Your task to perform on an android device: Clear the shopping cart on amazon. Search for "usb-a" on amazon, select the first entry, add it to the cart, then select checkout. Image 0: 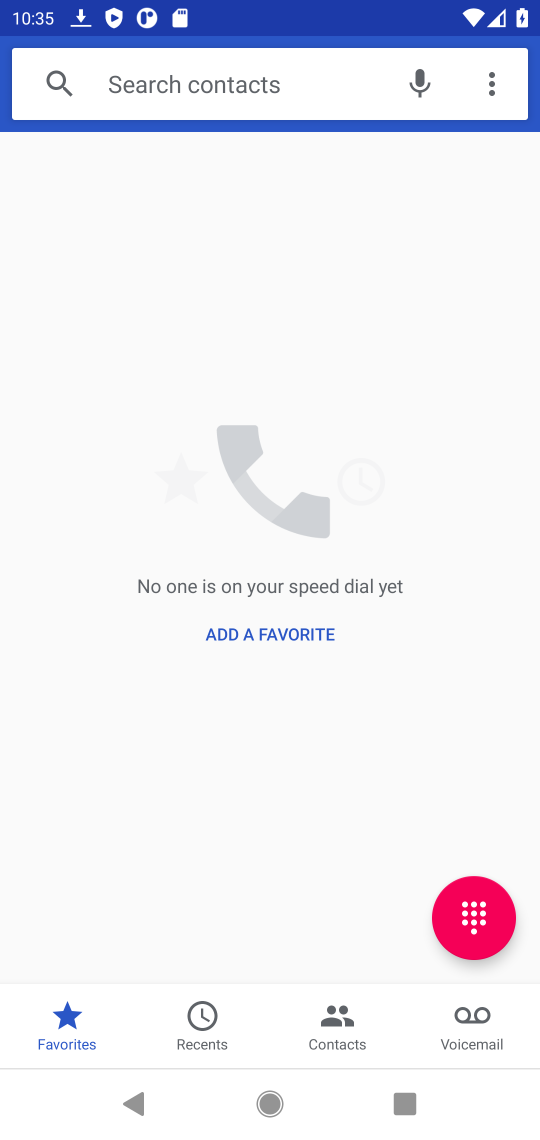
Step 0: press home button
Your task to perform on an android device: Clear the shopping cart on amazon. Search for "usb-a" on amazon, select the first entry, add it to the cart, then select checkout. Image 1: 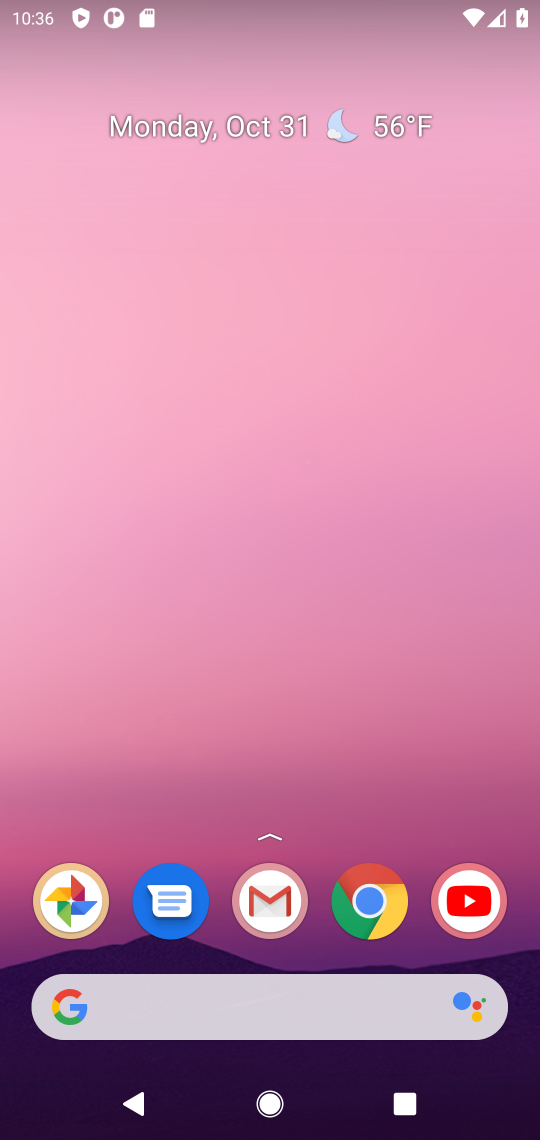
Step 1: drag from (236, 950) to (226, 507)
Your task to perform on an android device: Clear the shopping cart on amazon. Search for "usb-a" on amazon, select the first entry, add it to the cart, then select checkout. Image 2: 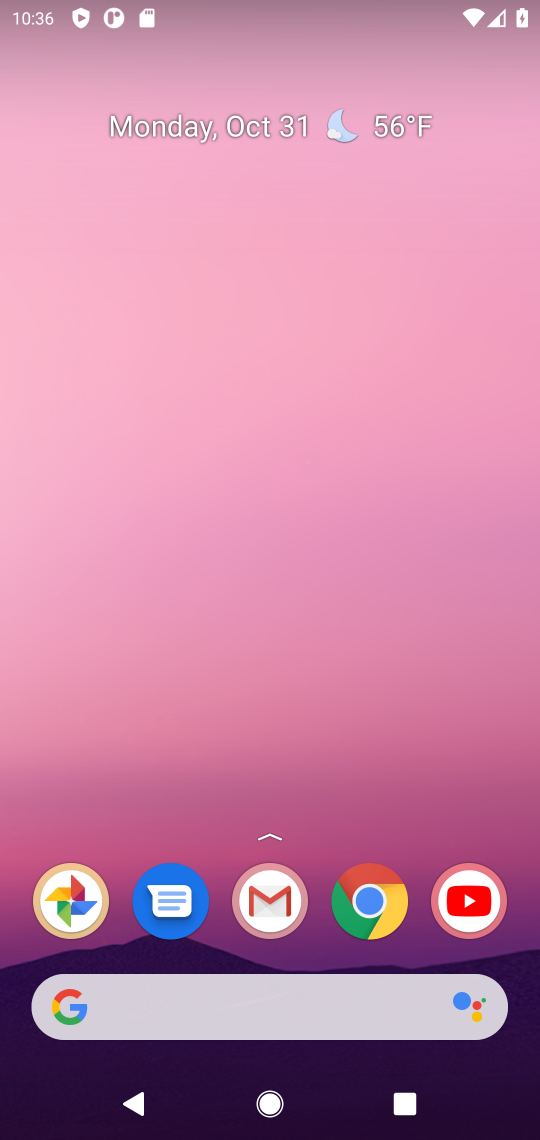
Step 2: drag from (235, 994) to (202, 76)
Your task to perform on an android device: Clear the shopping cart on amazon. Search for "usb-a" on amazon, select the first entry, add it to the cart, then select checkout. Image 3: 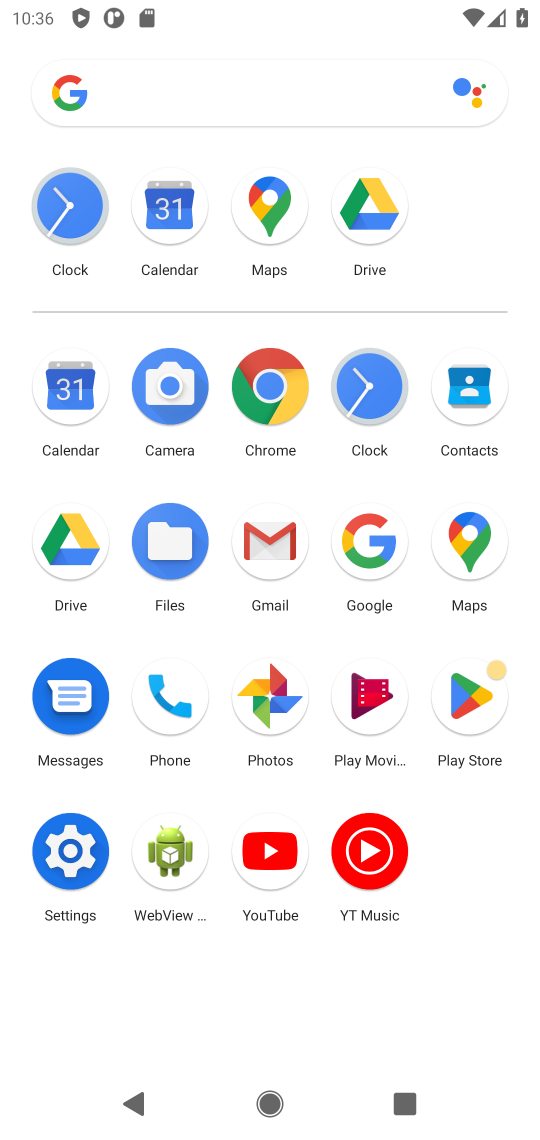
Step 3: click (366, 535)
Your task to perform on an android device: Clear the shopping cart on amazon. Search for "usb-a" on amazon, select the first entry, add it to the cart, then select checkout. Image 4: 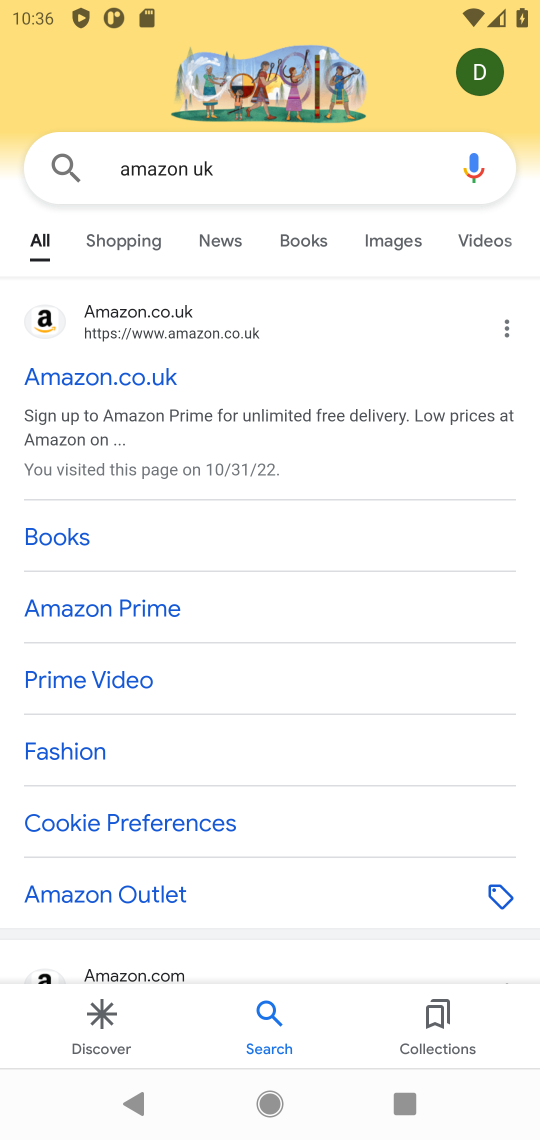
Step 4: click (301, 174)
Your task to perform on an android device: Clear the shopping cart on amazon. Search for "usb-a" on amazon, select the first entry, add it to the cart, then select checkout. Image 5: 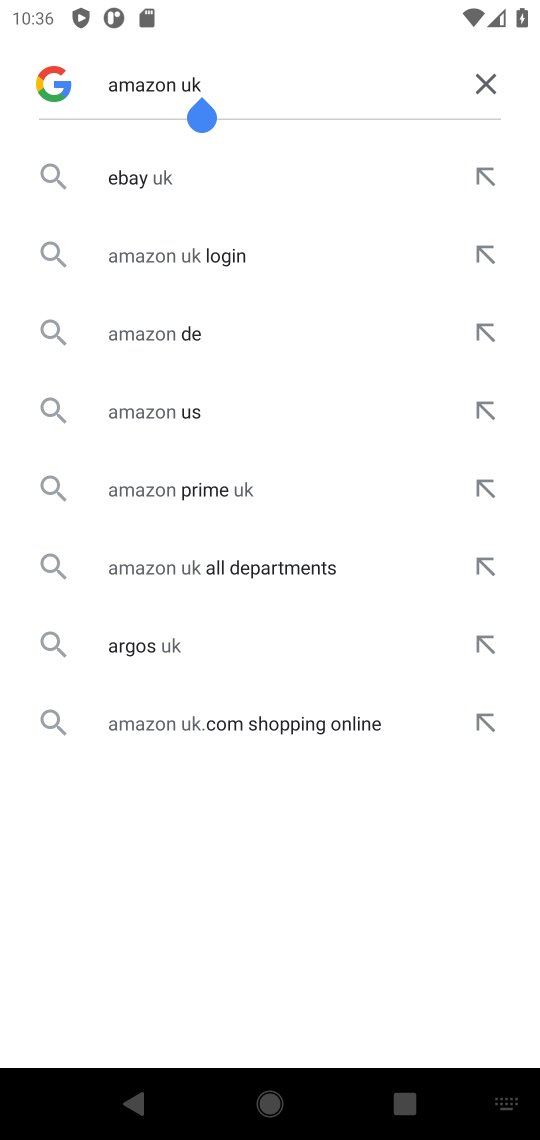
Step 5: click (483, 84)
Your task to perform on an android device: Clear the shopping cart on amazon. Search for "usb-a" on amazon, select the first entry, add it to the cart, then select checkout. Image 6: 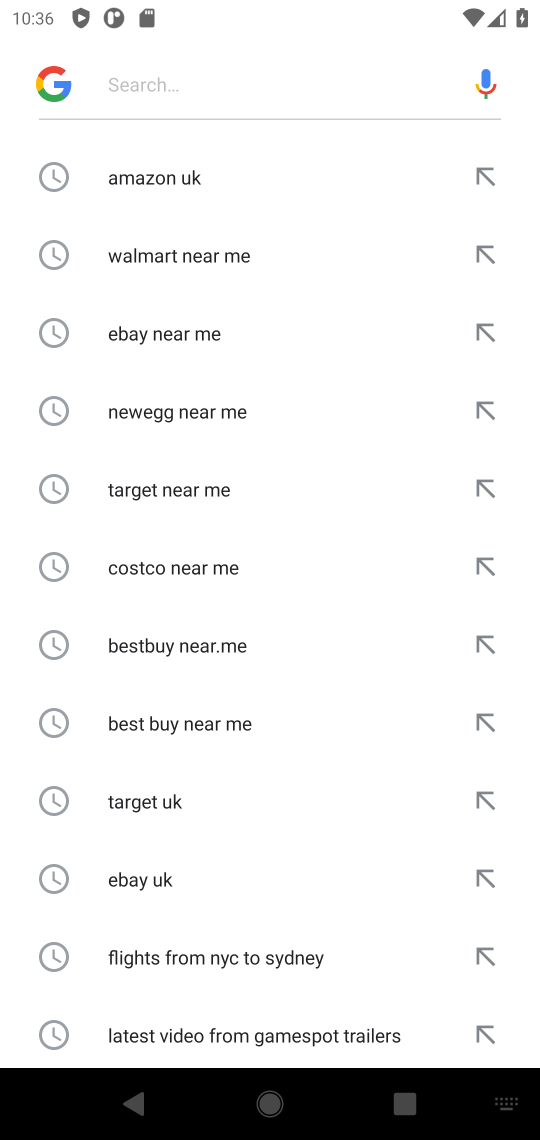
Step 6: click (167, 163)
Your task to perform on an android device: Clear the shopping cart on amazon. Search for "usb-a" on amazon, select the first entry, add it to the cart, then select checkout. Image 7: 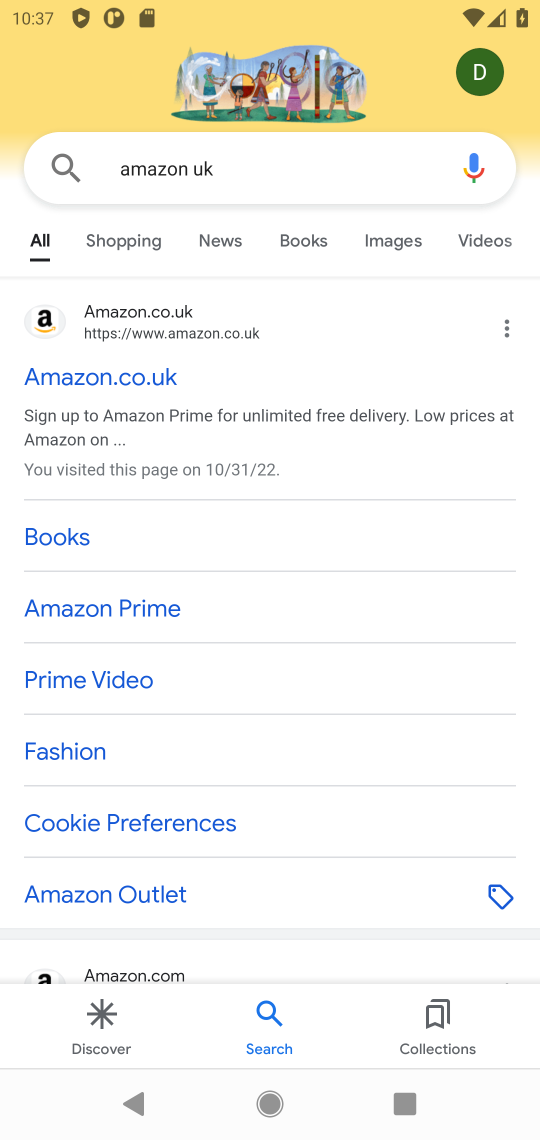
Step 7: click (71, 370)
Your task to perform on an android device: Clear the shopping cart on amazon. Search for "usb-a" on amazon, select the first entry, add it to the cart, then select checkout. Image 8: 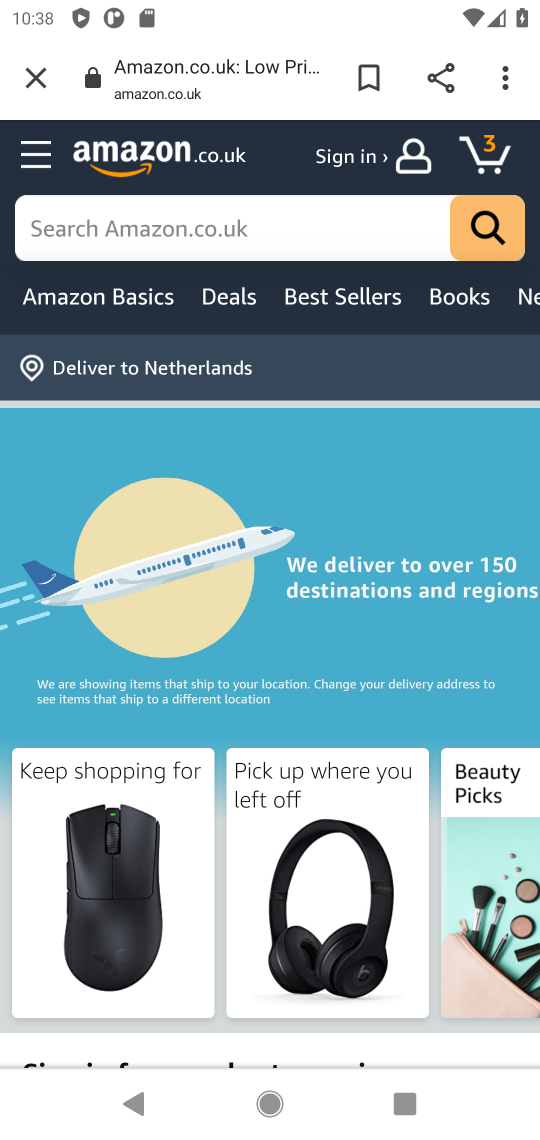
Step 8: click (250, 209)
Your task to perform on an android device: Clear the shopping cart on amazon. Search for "usb-a" on amazon, select the first entry, add it to the cart, then select checkout. Image 9: 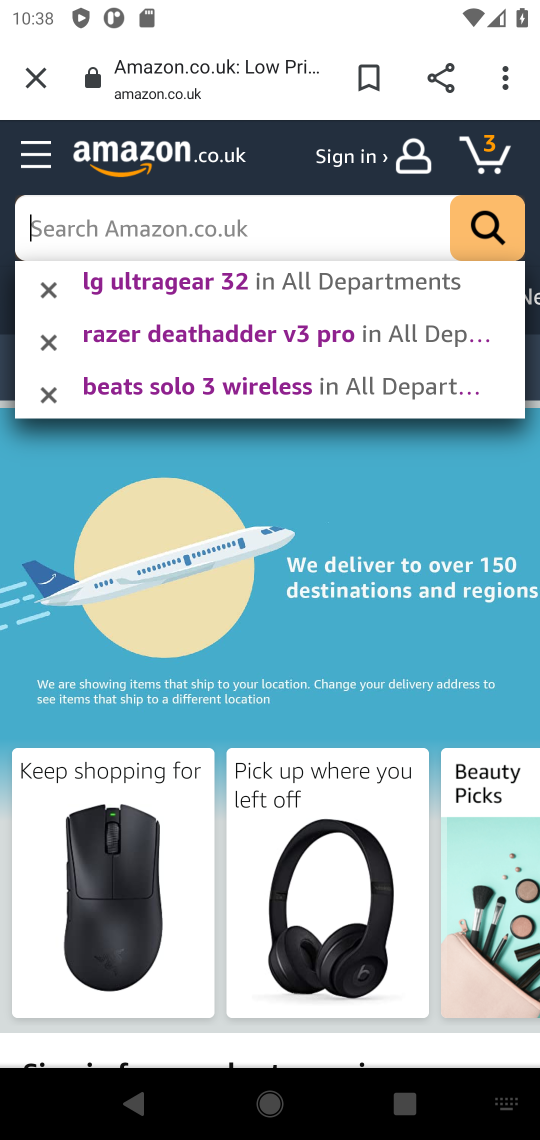
Step 9: click (244, 219)
Your task to perform on an android device: Clear the shopping cart on amazon. Search for "usb-a" on amazon, select the first entry, add it to the cart, then select checkout. Image 10: 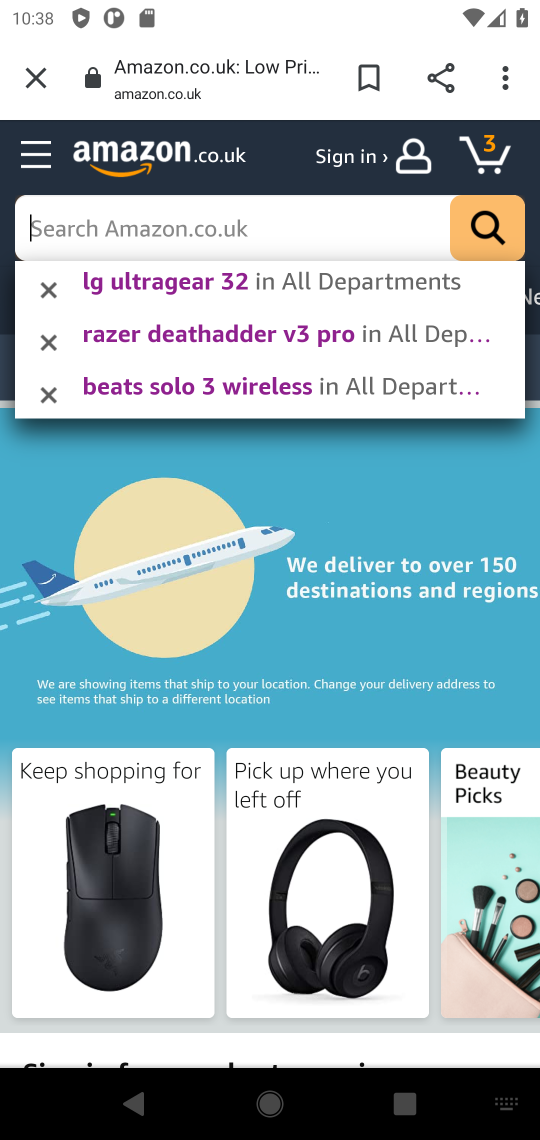
Step 10: type "usb-a "
Your task to perform on an android device: Clear the shopping cart on amazon. Search for "usb-a" on amazon, select the first entry, add it to the cart, then select checkout. Image 11: 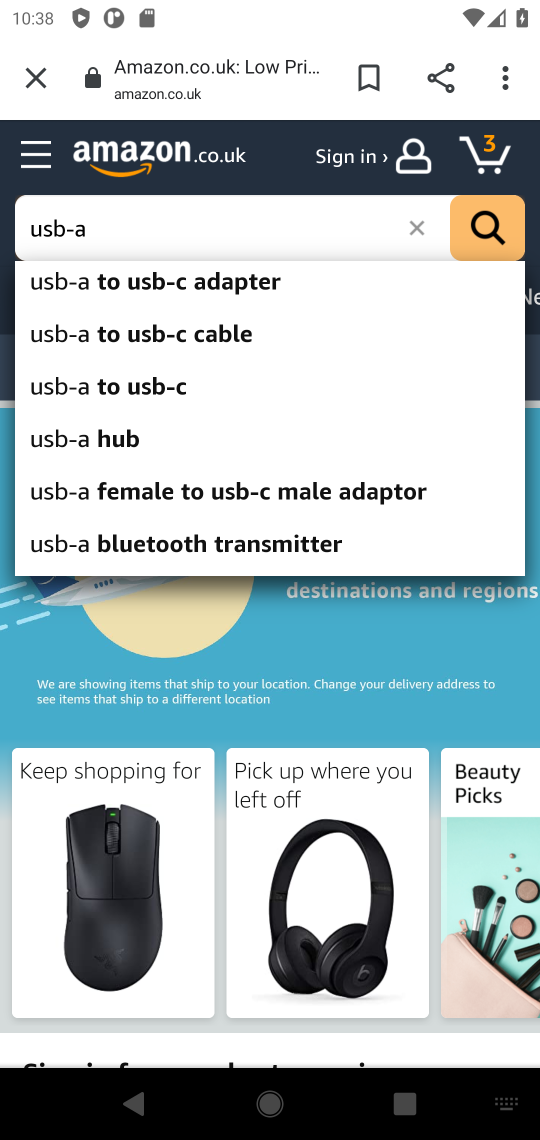
Step 11: click (92, 439)
Your task to perform on an android device: Clear the shopping cart on amazon. Search for "usb-a" on amazon, select the first entry, add it to the cart, then select checkout. Image 12: 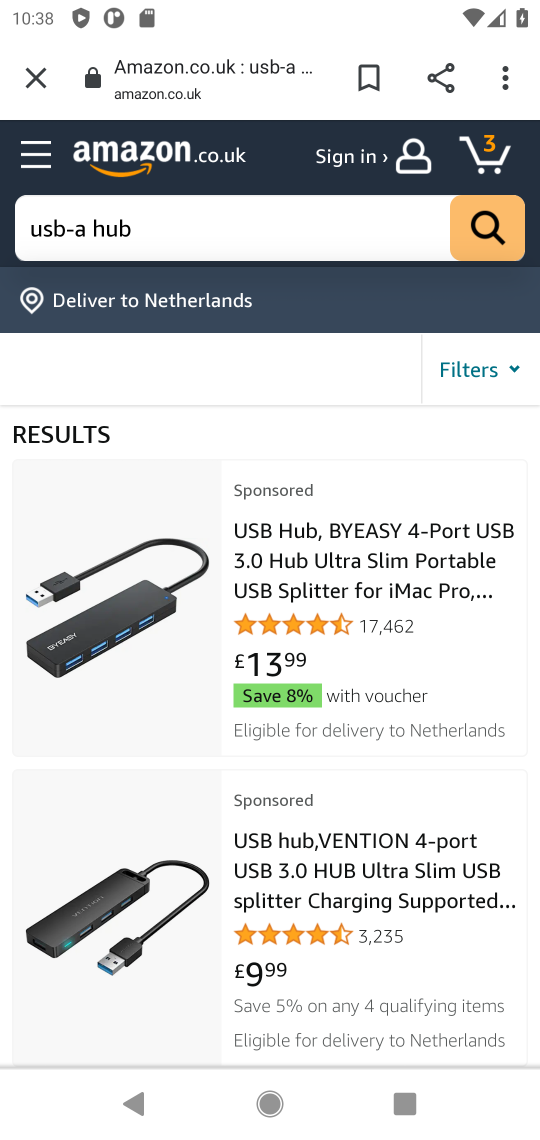
Step 12: click (293, 560)
Your task to perform on an android device: Clear the shopping cart on amazon. Search for "usb-a" on amazon, select the first entry, add it to the cart, then select checkout. Image 13: 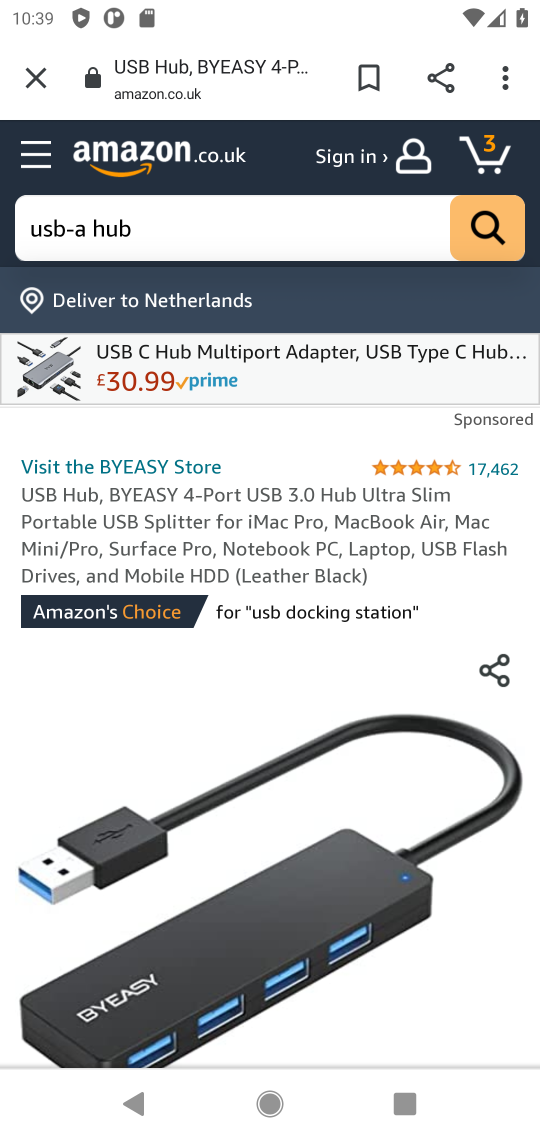
Step 13: drag from (245, 899) to (301, 337)
Your task to perform on an android device: Clear the shopping cart on amazon. Search for "usb-a" on amazon, select the first entry, add it to the cart, then select checkout. Image 14: 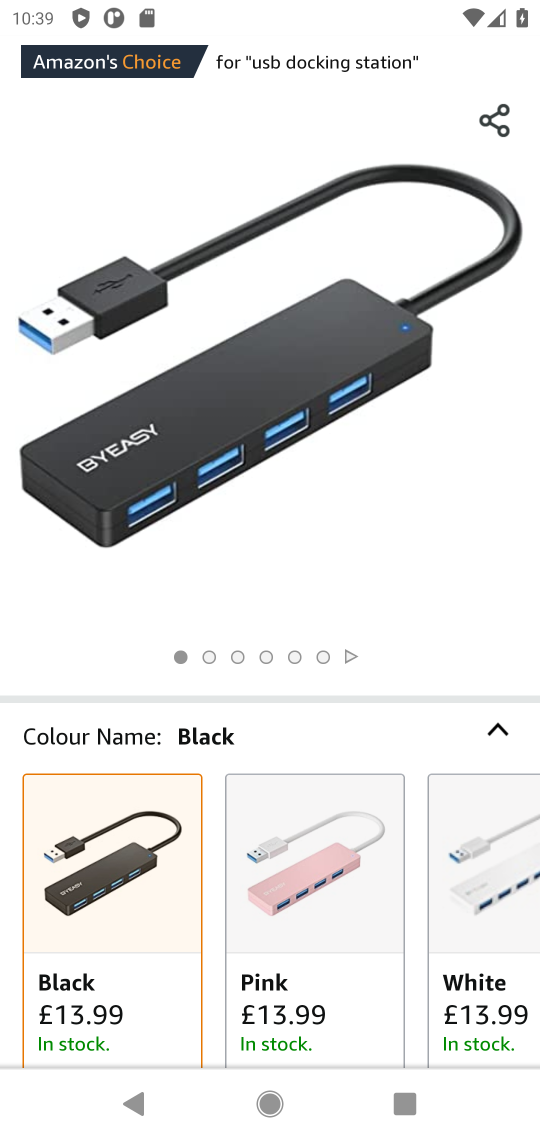
Step 14: drag from (275, 875) to (362, 166)
Your task to perform on an android device: Clear the shopping cart on amazon. Search for "usb-a" on amazon, select the first entry, add it to the cart, then select checkout. Image 15: 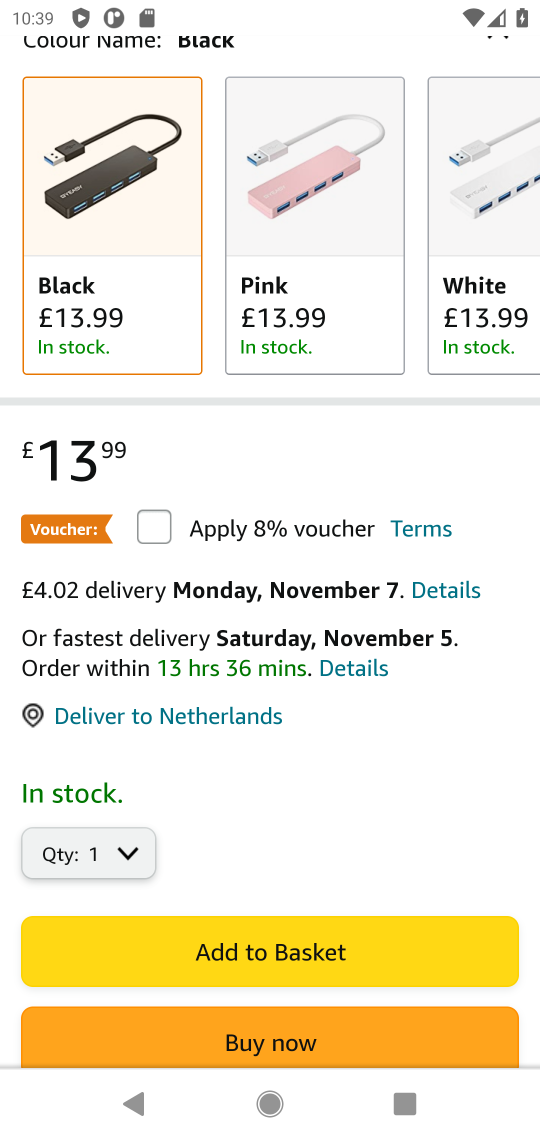
Step 15: click (252, 941)
Your task to perform on an android device: Clear the shopping cart on amazon. Search for "usb-a" on amazon, select the first entry, add it to the cart, then select checkout. Image 16: 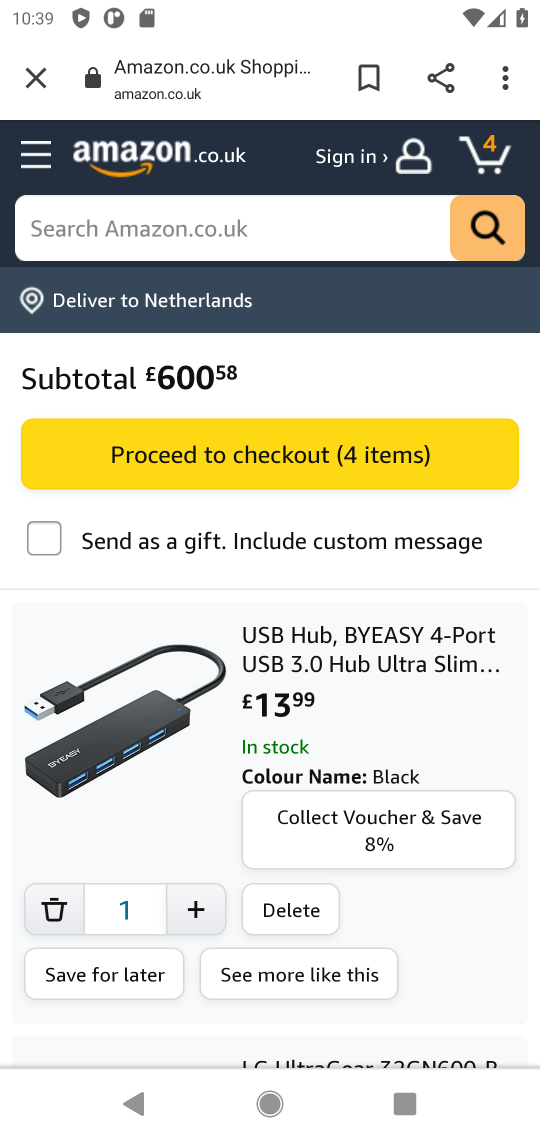
Step 16: task complete